Your task to perform on an android device: turn off sleep mode Image 0: 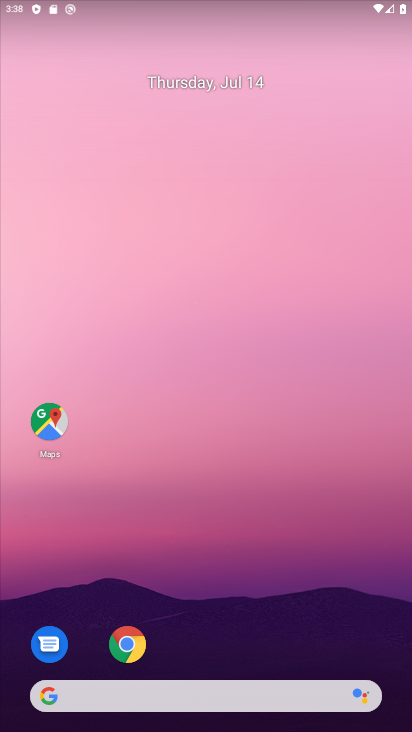
Step 0: drag from (286, 622) to (317, 270)
Your task to perform on an android device: turn off sleep mode Image 1: 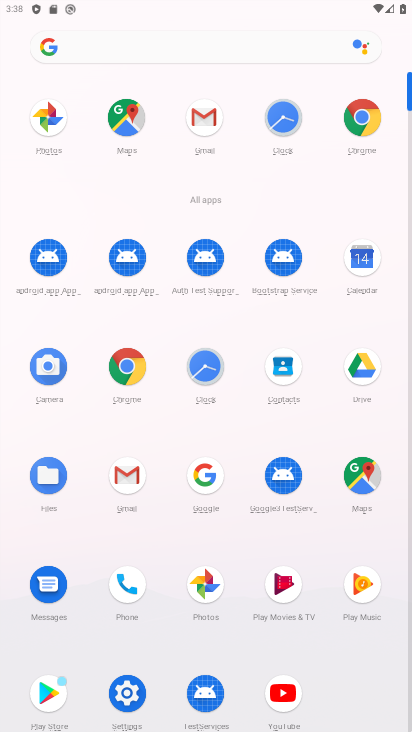
Step 1: click (128, 692)
Your task to perform on an android device: turn off sleep mode Image 2: 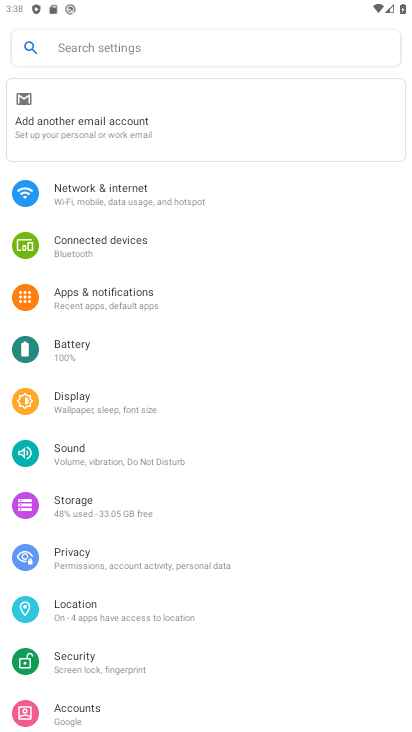
Step 2: click (80, 403)
Your task to perform on an android device: turn off sleep mode Image 3: 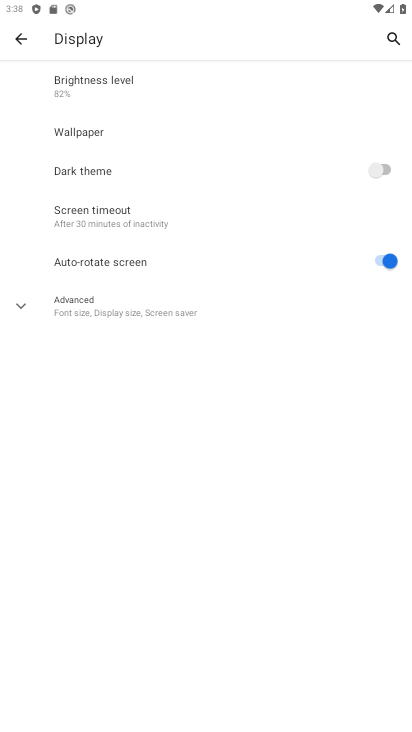
Step 3: task complete